Your task to perform on an android device: Open internet settings Image 0: 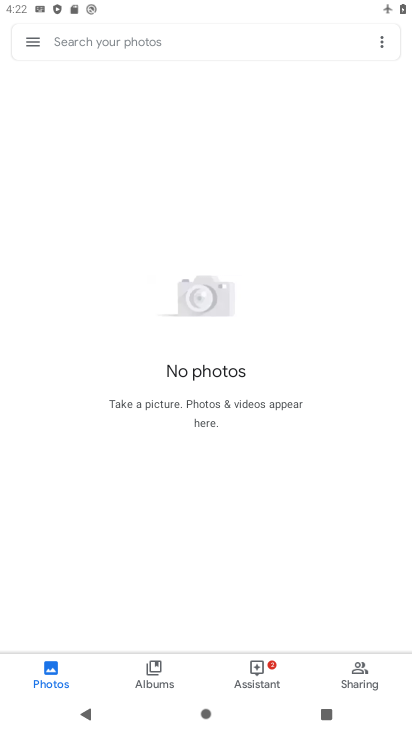
Step 0: press home button
Your task to perform on an android device: Open internet settings Image 1: 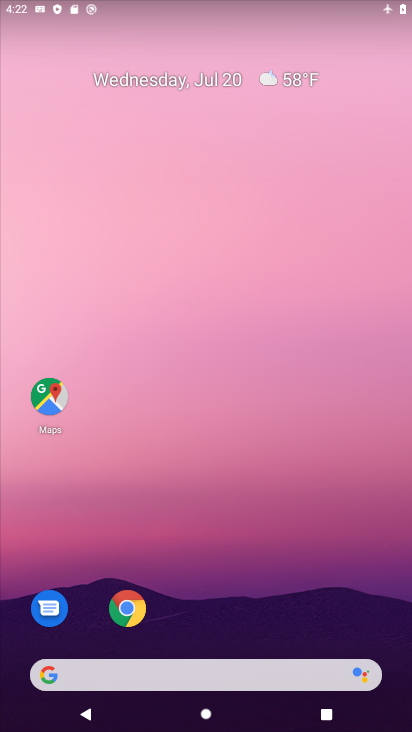
Step 1: drag from (284, 590) to (229, 260)
Your task to perform on an android device: Open internet settings Image 2: 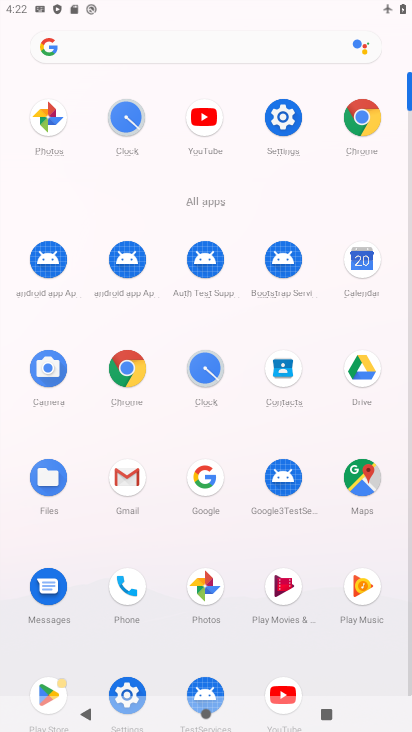
Step 2: drag from (262, 624) to (220, 82)
Your task to perform on an android device: Open internet settings Image 3: 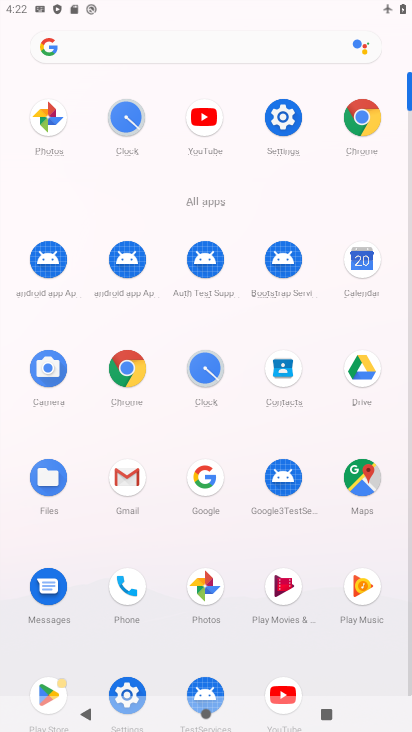
Step 3: click (276, 113)
Your task to perform on an android device: Open internet settings Image 4: 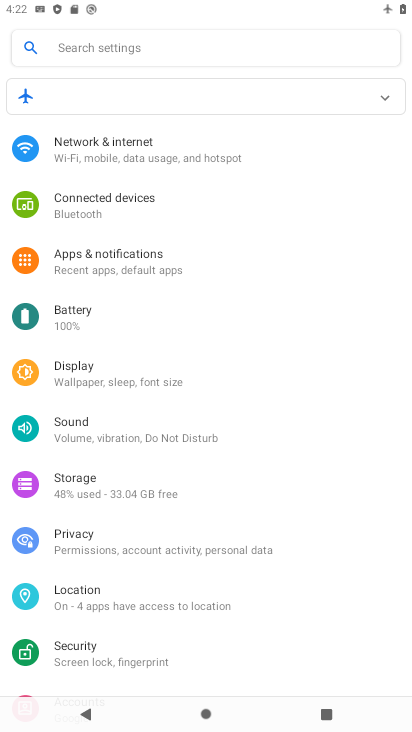
Step 4: click (233, 148)
Your task to perform on an android device: Open internet settings Image 5: 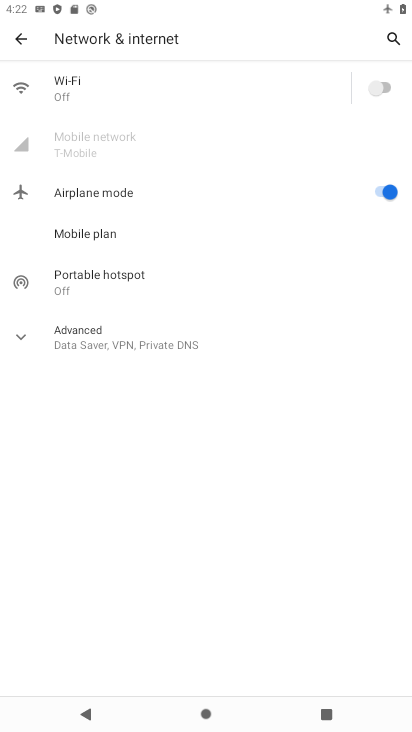
Step 5: task complete